Your task to perform on an android device: Go to notification settings Image 0: 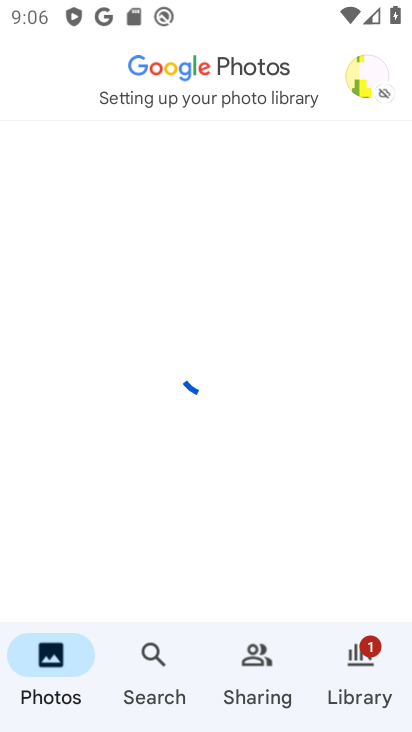
Step 0: press home button
Your task to perform on an android device: Go to notification settings Image 1: 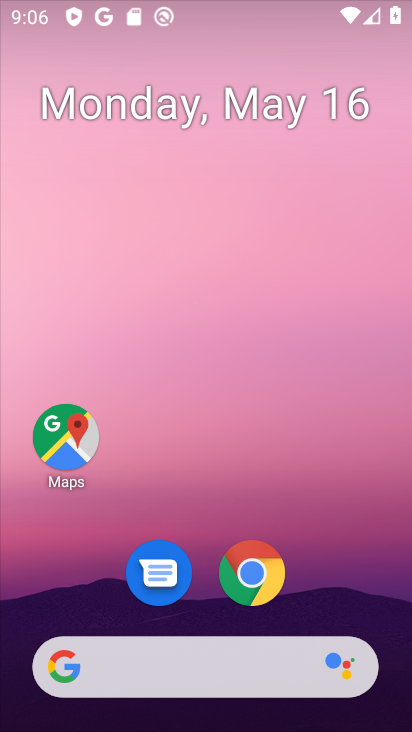
Step 1: drag from (353, 568) to (320, 120)
Your task to perform on an android device: Go to notification settings Image 2: 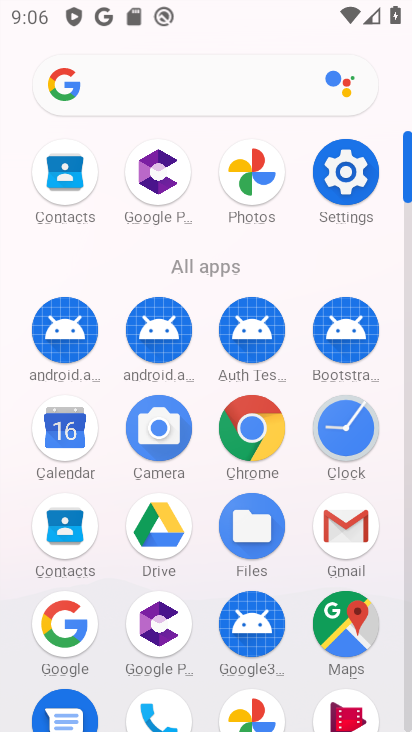
Step 2: click (342, 167)
Your task to perform on an android device: Go to notification settings Image 3: 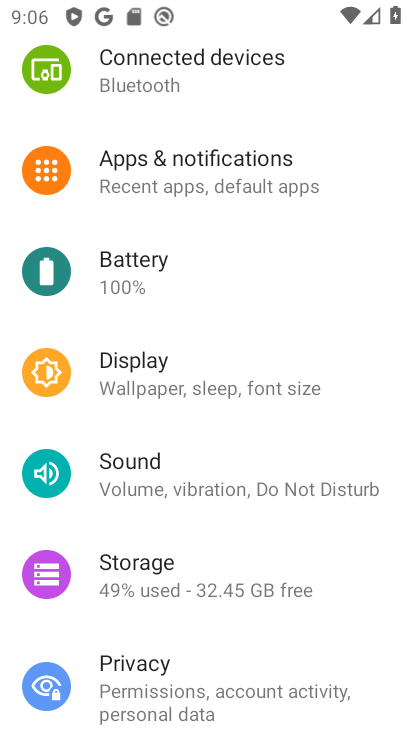
Step 3: click (217, 183)
Your task to perform on an android device: Go to notification settings Image 4: 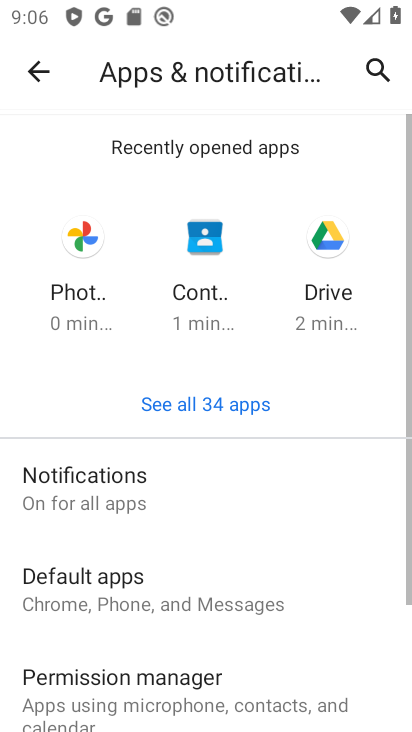
Step 4: click (150, 495)
Your task to perform on an android device: Go to notification settings Image 5: 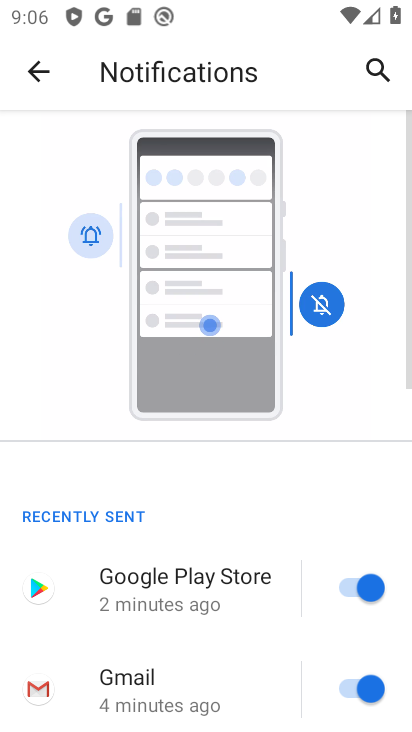
Step 5: task complete